Your task to perform on an android device: change the clock style Image 0: 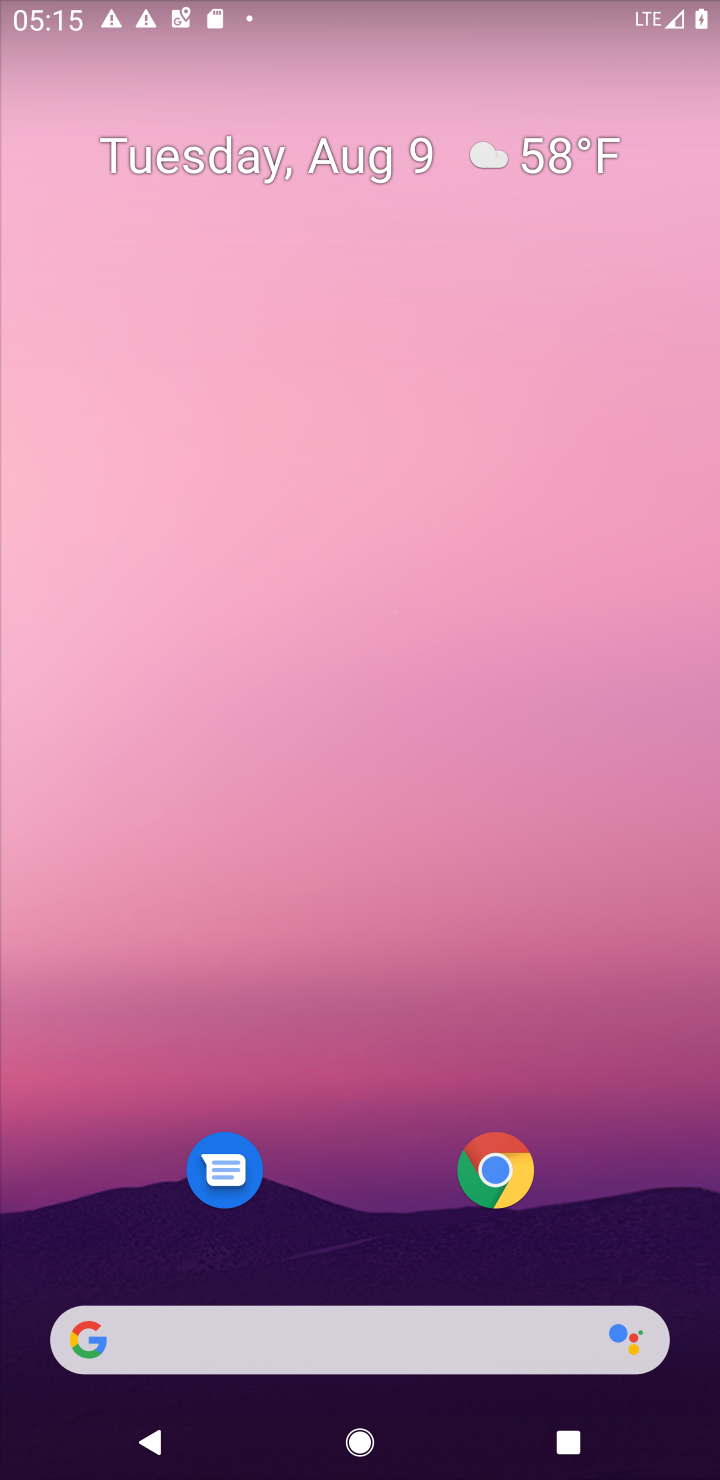
Step 0: press home button
Your task to perform on an android device: change the clock style Image 1: 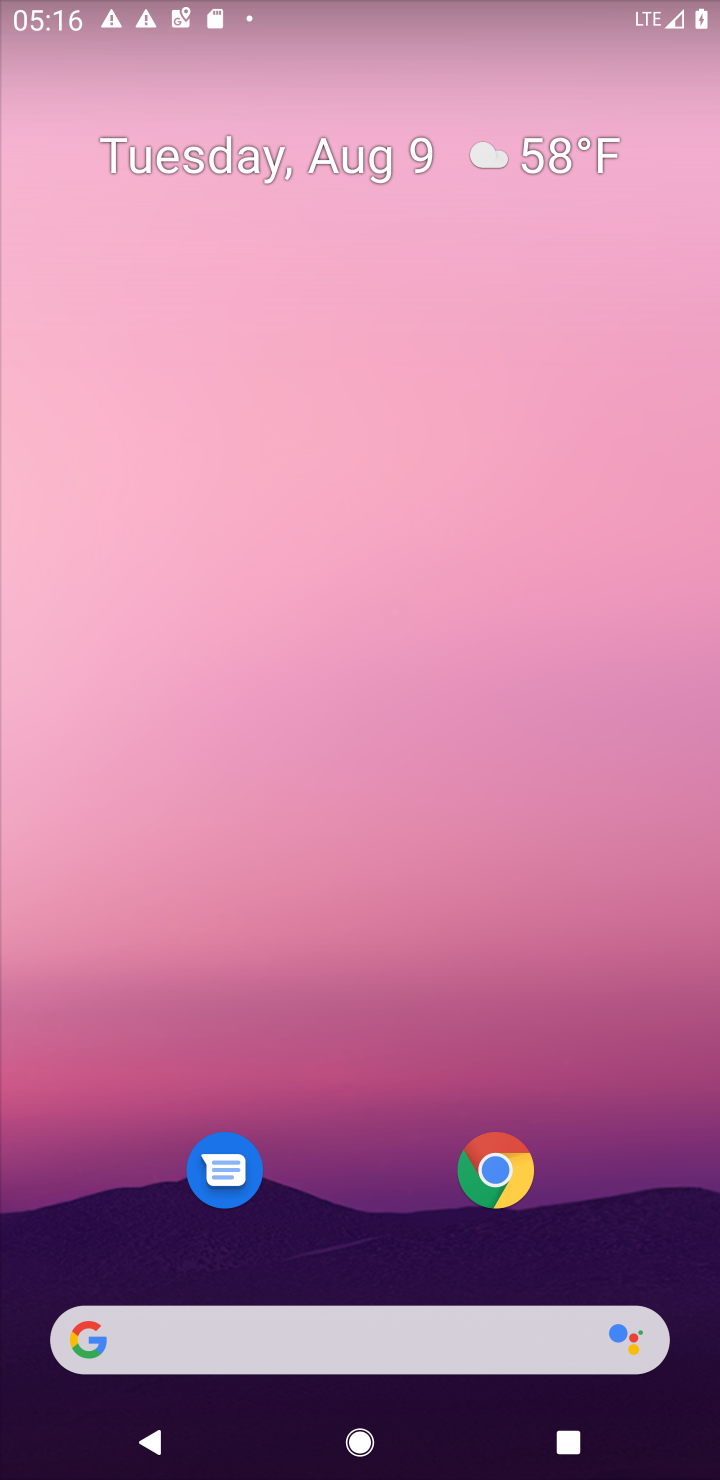
Step 1: drag from (388, 1281) to (372, 3)
Your task to perform on an android device: change the clock style Image 2: 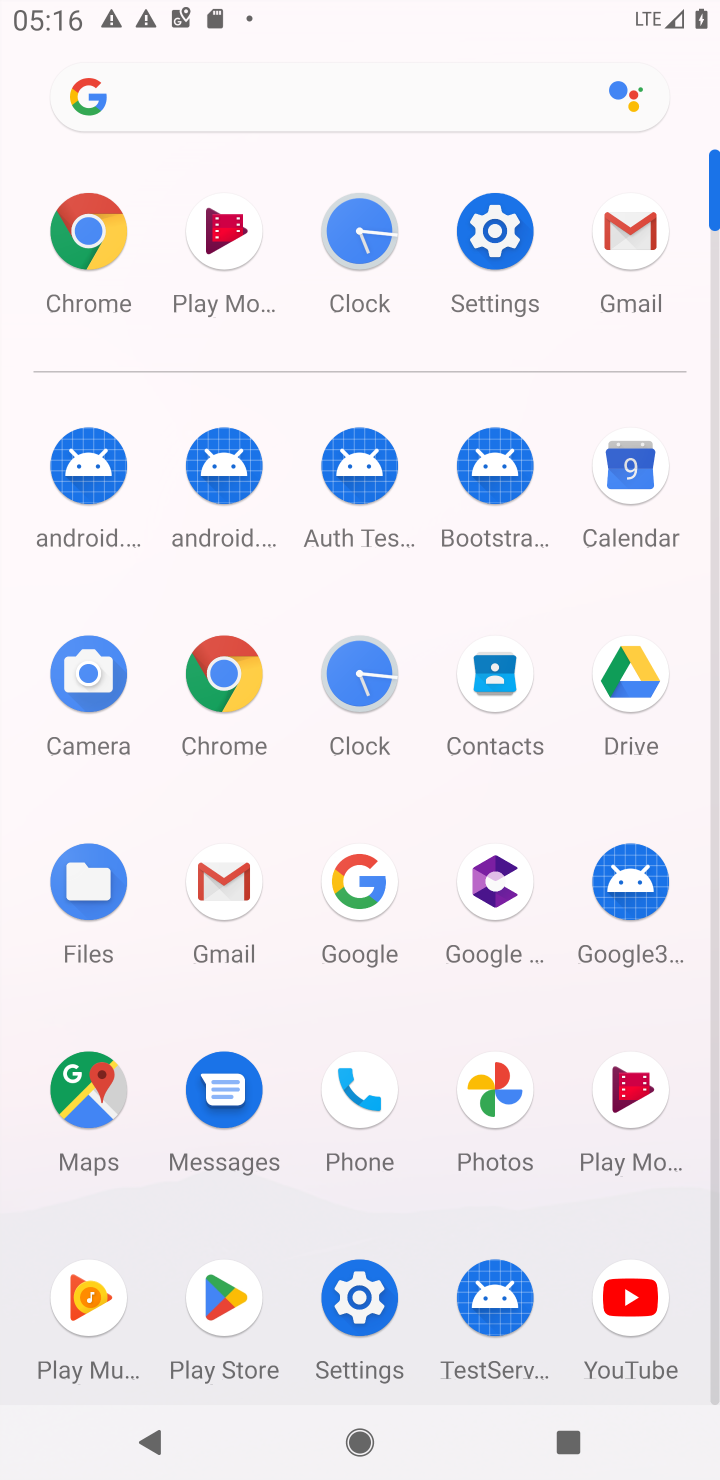
Step 2: click (353, 221)
Your task to perform on an android device: change the clock style Image 3: 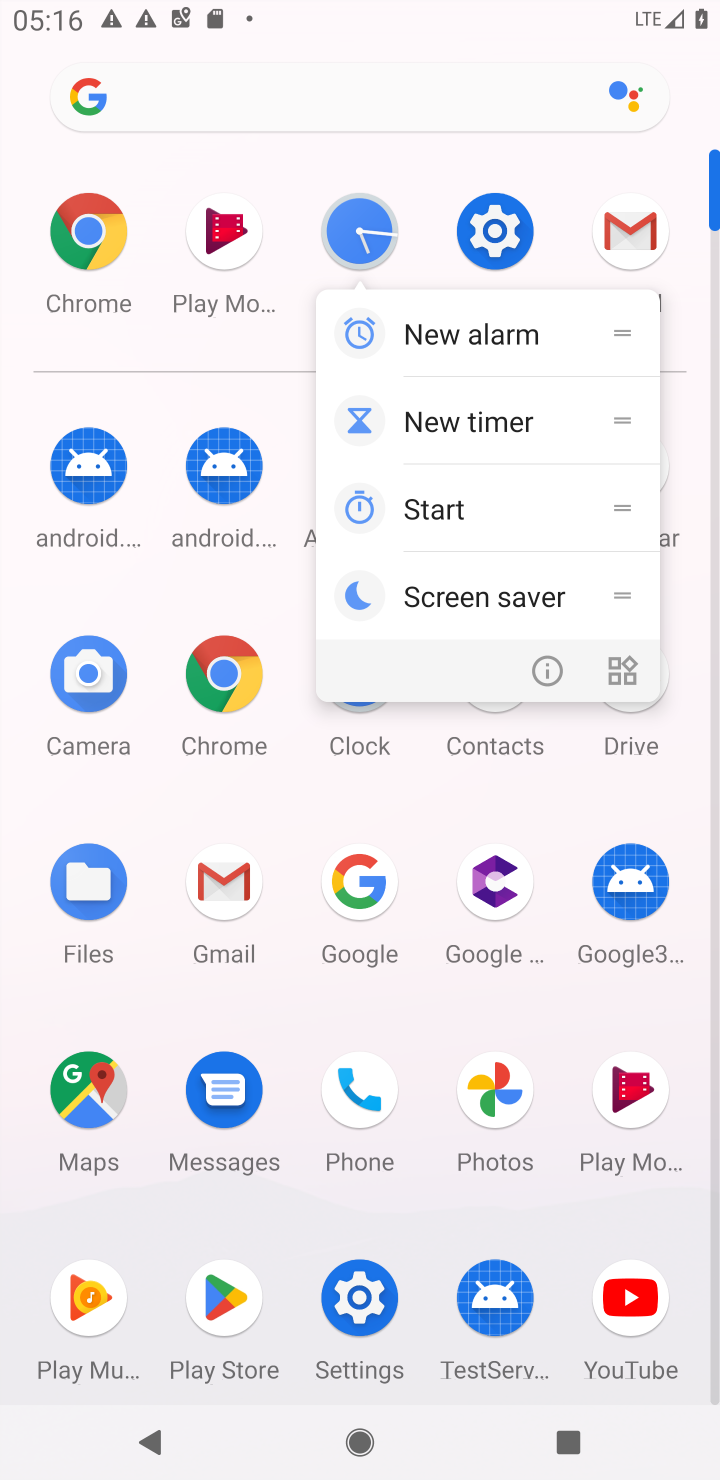
Step 3: click (343, 243)
Your task to perform on an android device: change the clock style Image 4: 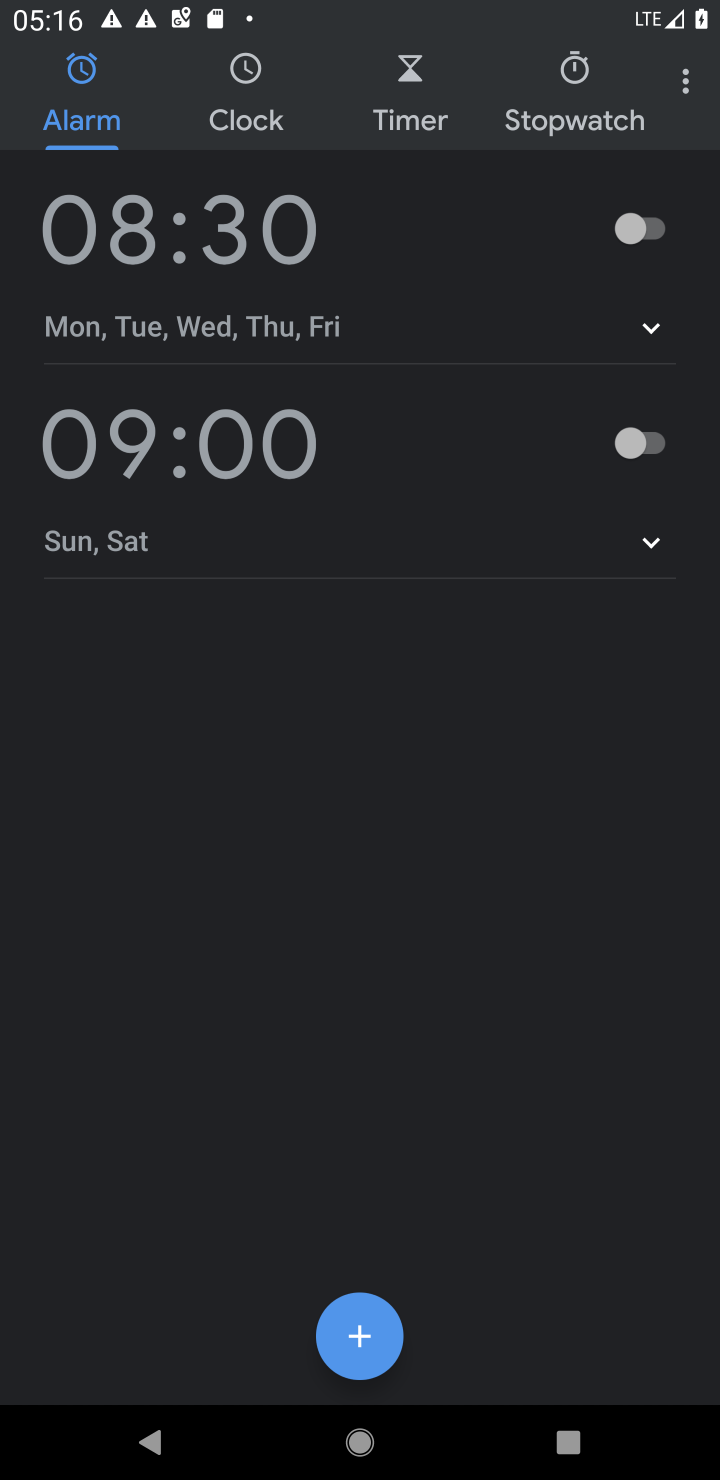
Step 4: click (683, 97)
Your task to perform on an android device: change the clock style Image 5: 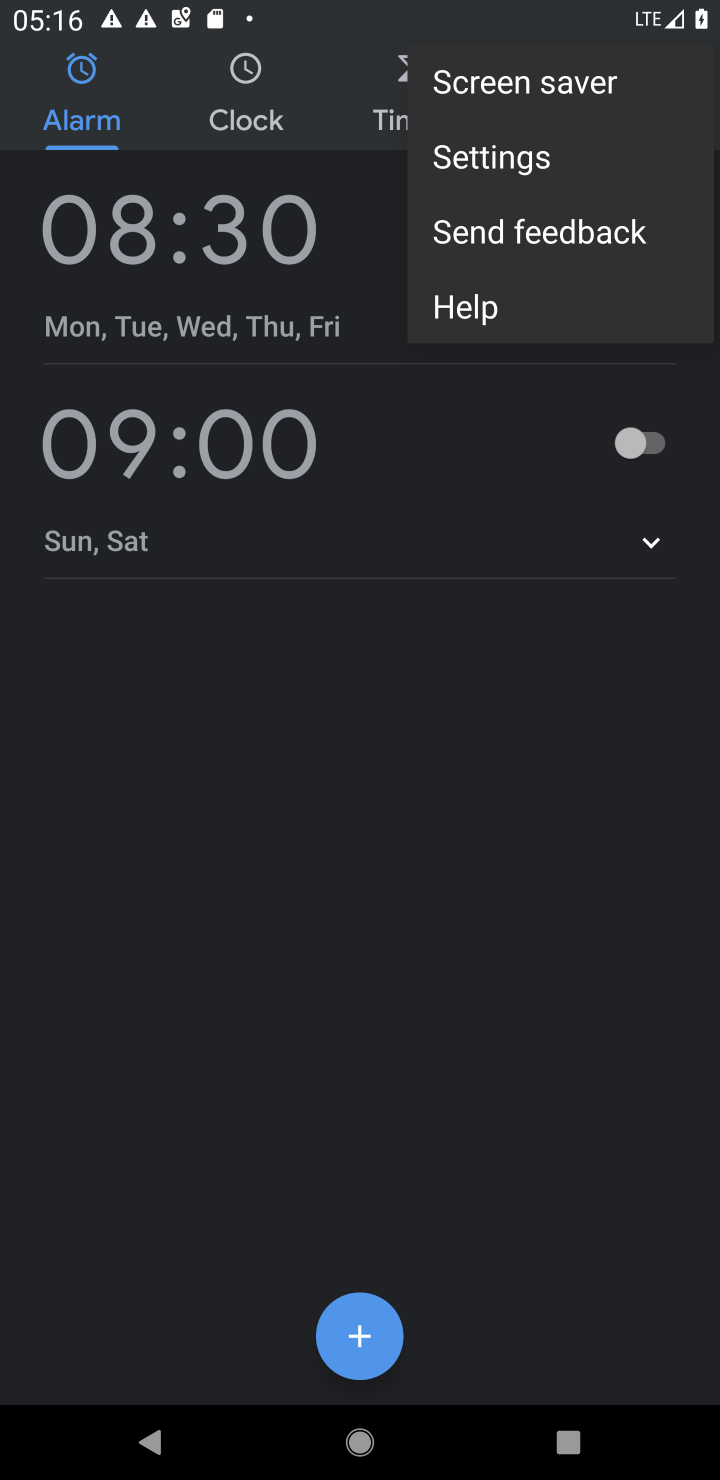
Step 5: click (521, 161)
Your task to perform on an android device: change the clock style Image 6: 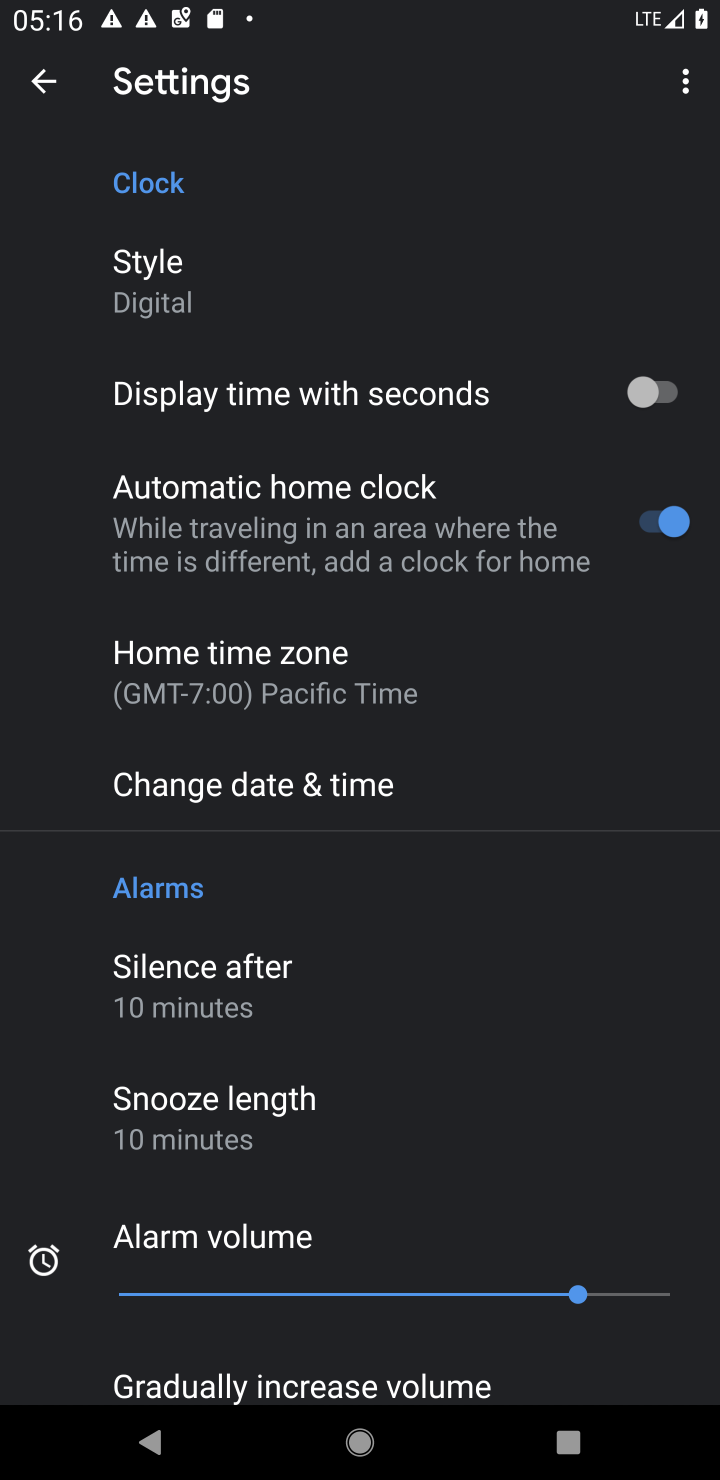
Step 6: click (124, 285)
Your task to perform on an android device: change the clock style Image 7: 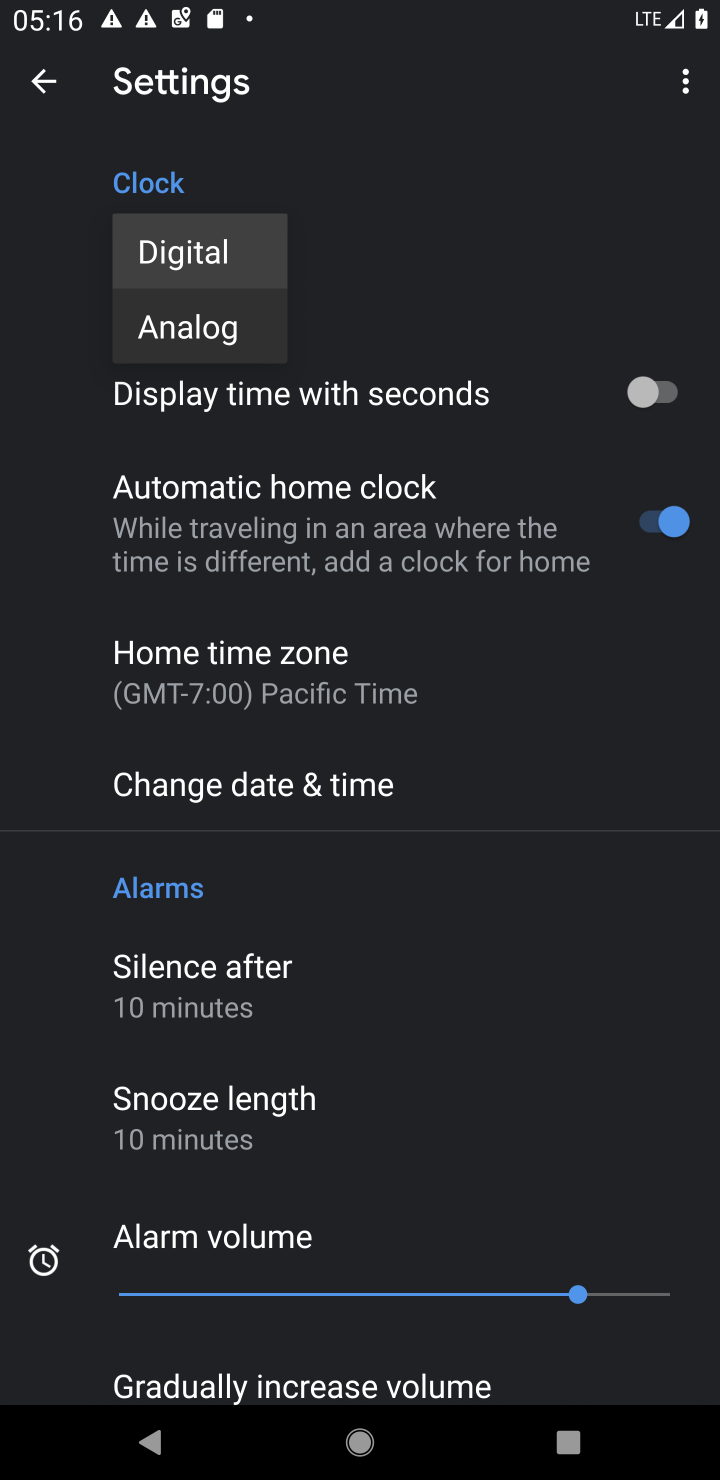
Step 7: click (224, 330)
Your task to perform on an android device: change the clock style Image 8: 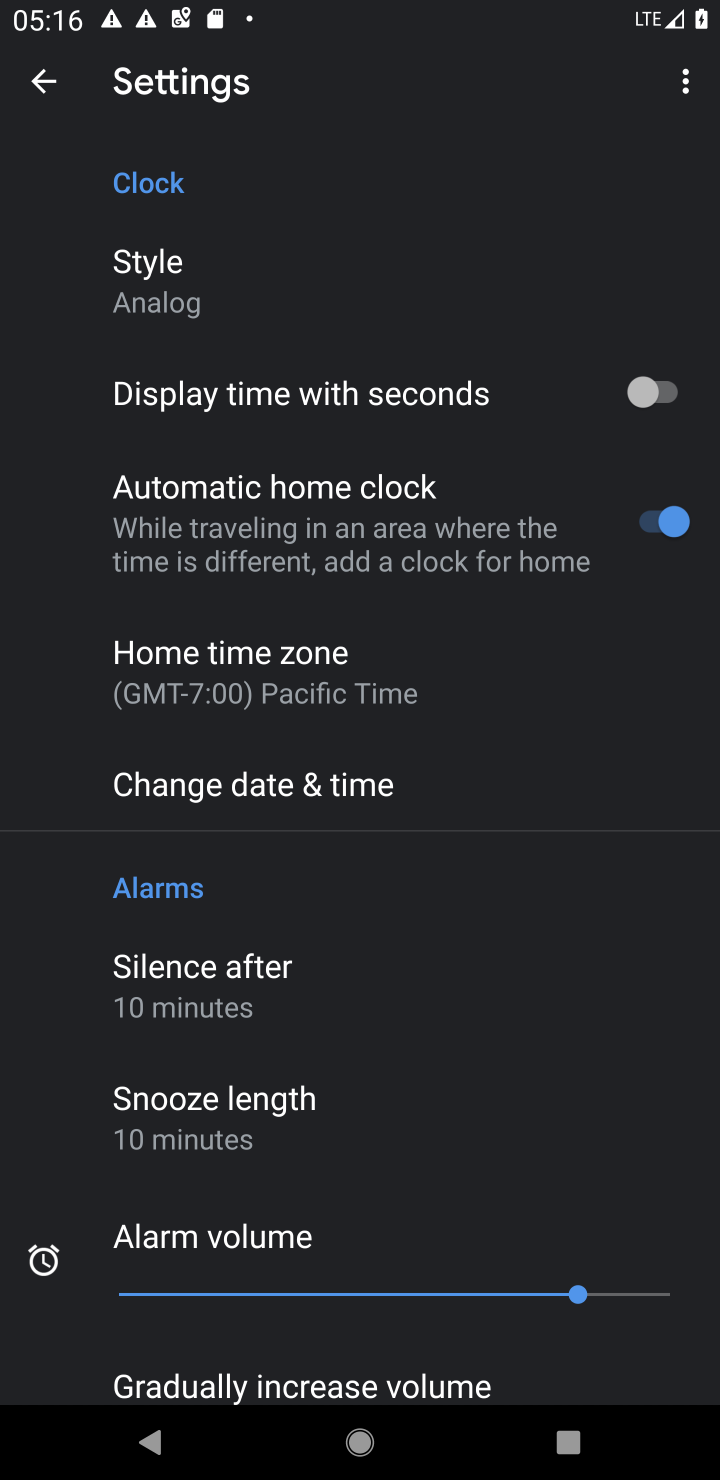
Step 8: task complete